Your task to perform on an android device: toggle improve location accuracy Image 0: 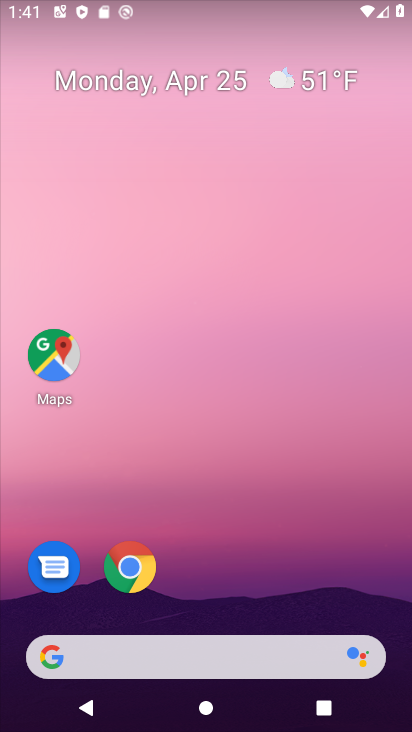
Step 0: drag from (283, 602) to (219, 58)
Your task to perform on an android device: toggle improve location accuracy Image 1: 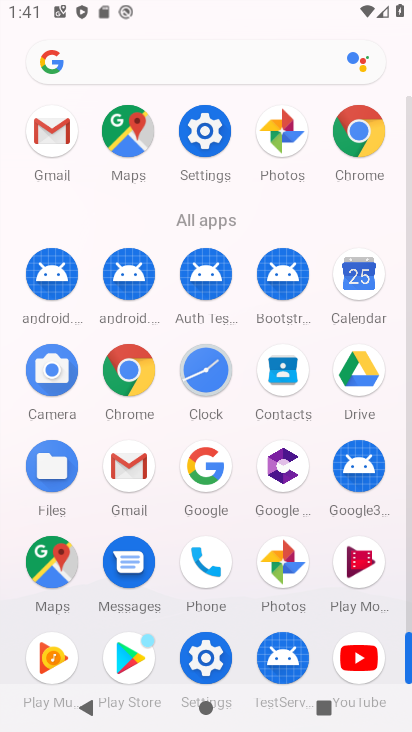
Step 1: click (194, 645)
Your task to perform on an android device: toggle improve location accuracy Image 2: 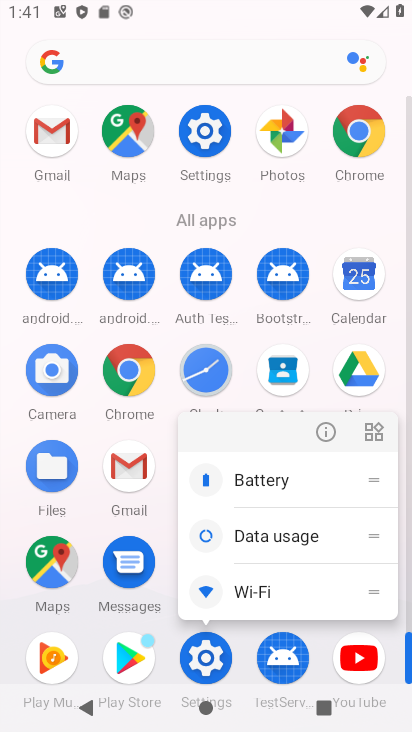
Step 2: click (194, 657)
Your task to perform on an android device: toggle improve location accuracy Image 3: 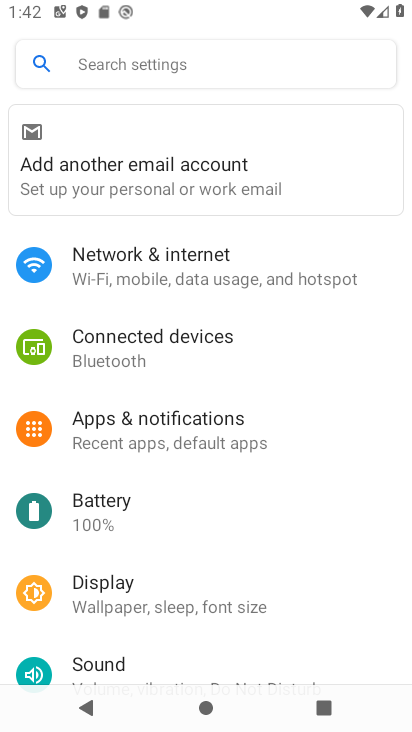
Step 3: drag from (199, 536) to (207, 332)
Your task to perform on an android device: toggle improve location accuracy Image 4: 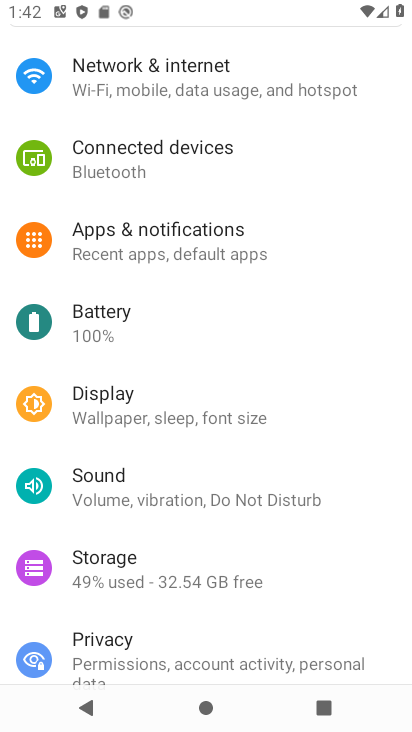
Step 4: drag from (244, 614) to (232, 391)
Your task to perform on an android device: toggle improve location accuracy Image 5: 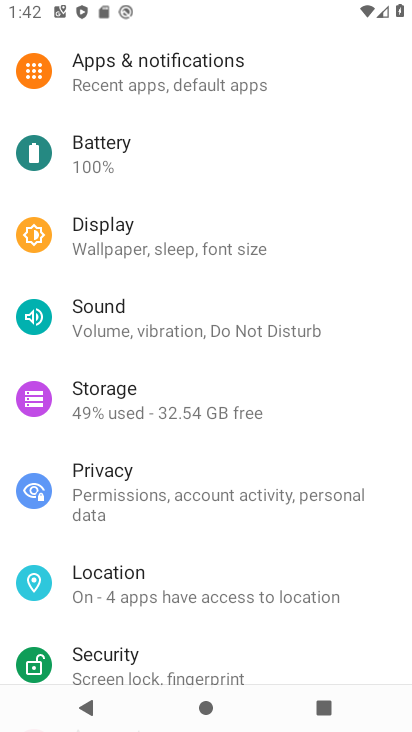
Step 5: click (119, 579)
Your task to perform on an android device: toggle improve location accuracy Image 6: 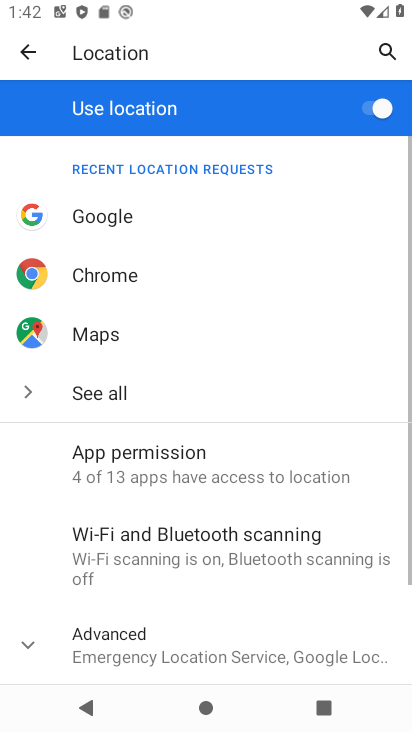
Step 6: drag from (277, 615) to (266, 306)
Your task to perform on an android device: toggle improve location accuracy Image 7: 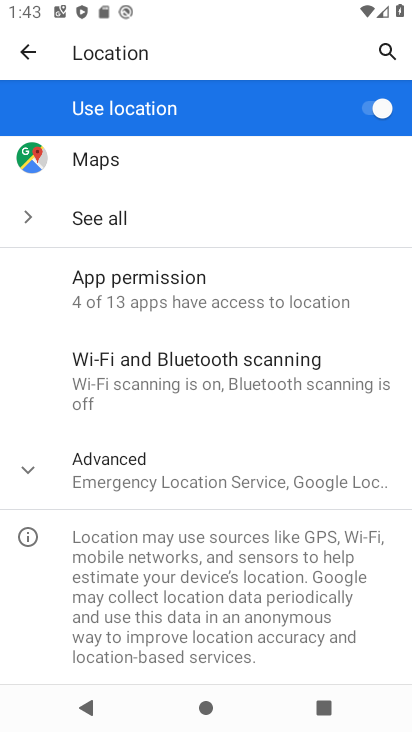
Step 7: click (133, 466)
Your task to perform on an android device: toggle improve location accuracy Image 8: 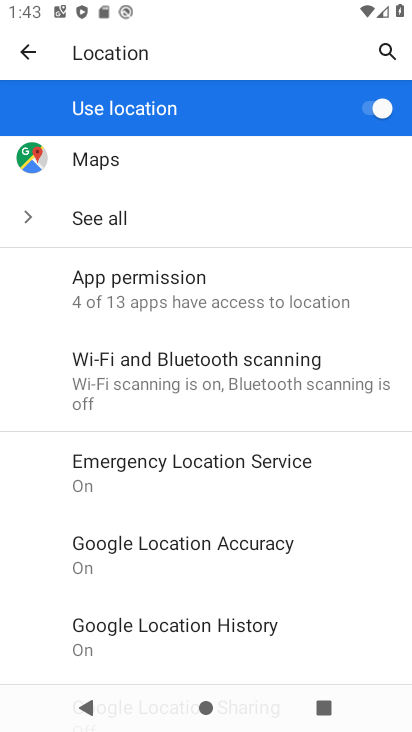
Step 8: drag from (187, 588) to (223, 372)
Your task to perform on an android device: toggle improve location accuracy Image 9: 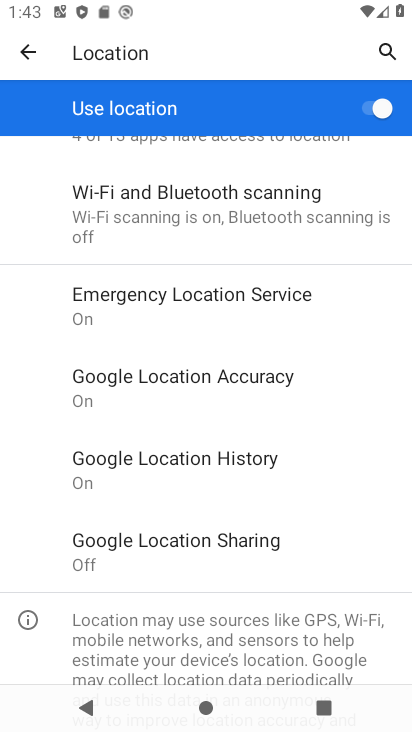
Step 9: click (212, 387)
Your task to perform on an android device: toggle improve location accuracy Image 10: 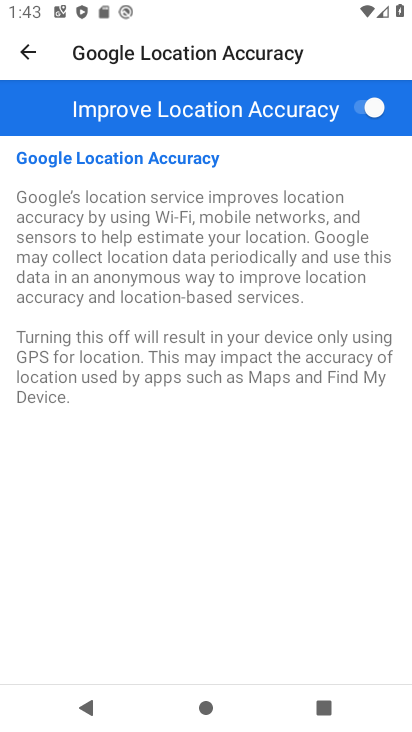
Step 10: click (372, 93)
Your task to perform on an android device: toggle improve location accuracy Image 11: 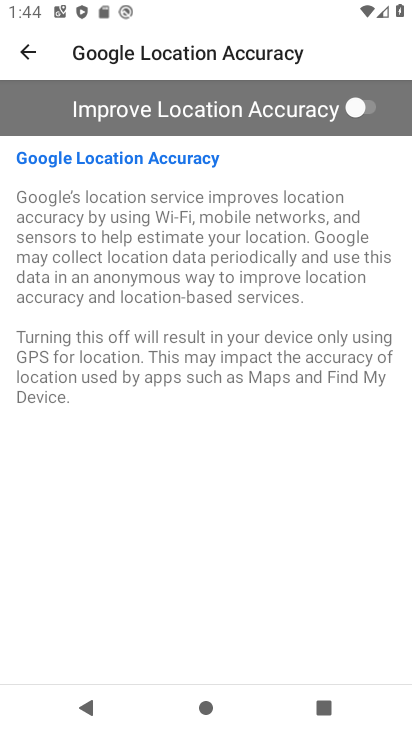
Step 11: task complete